Your task to perform on an android device: Is it going to rain tomorrow? Image 0: 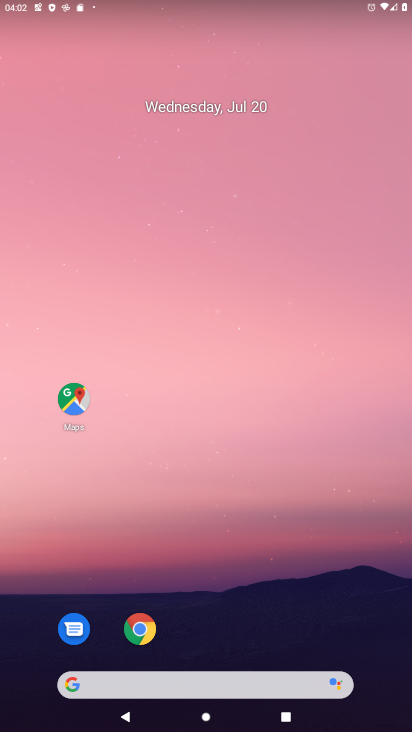
Step 0: click (367, 648)
Your task to perform on an android device: Is it going to rain tomorrow? Image 1: 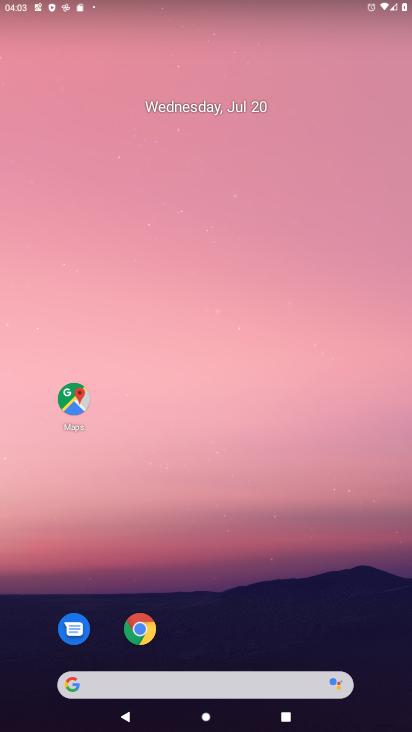
Step 1: drag from (7, 270) to (406, 288)
Your task to perform on an android device: Is it going to rain tomorrow? Image 2: 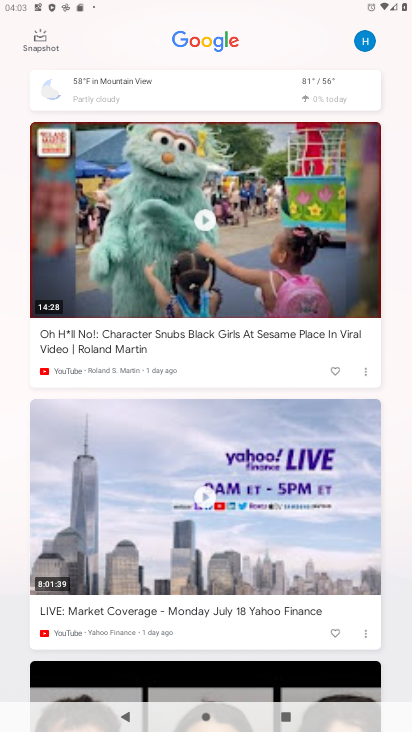
Step 2: click (291, 80)
Your task to perform on an android device: Is it going to rain tomorrow? Image 3: 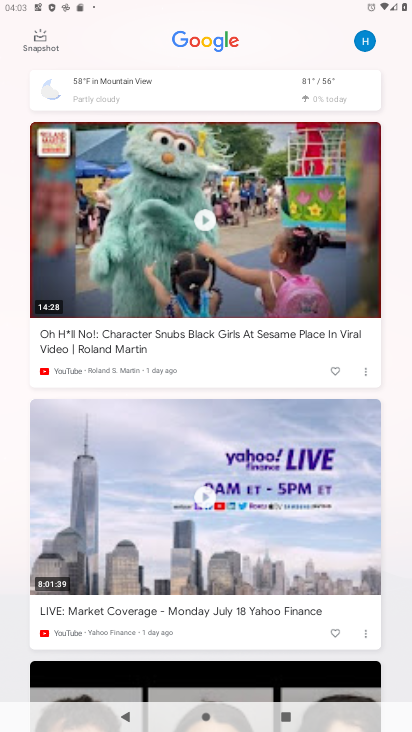
Step 3: click (307, 81)
Your task to perform on an android device: Is it going to rain tomorrow? Image 4: 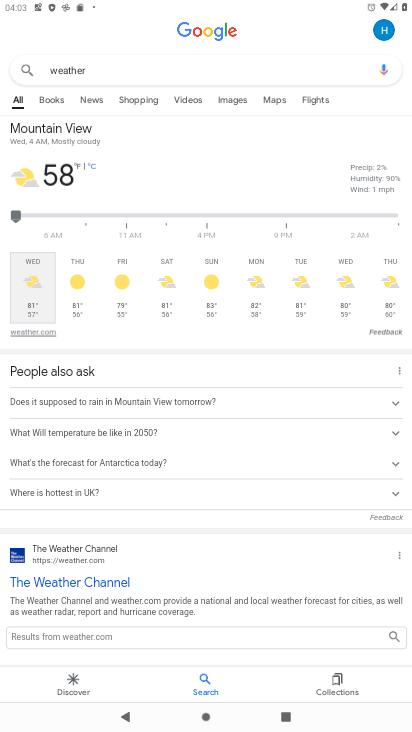
Step 4: task complete